Your task to perform on an android device: Go to privacy settings Image 0: 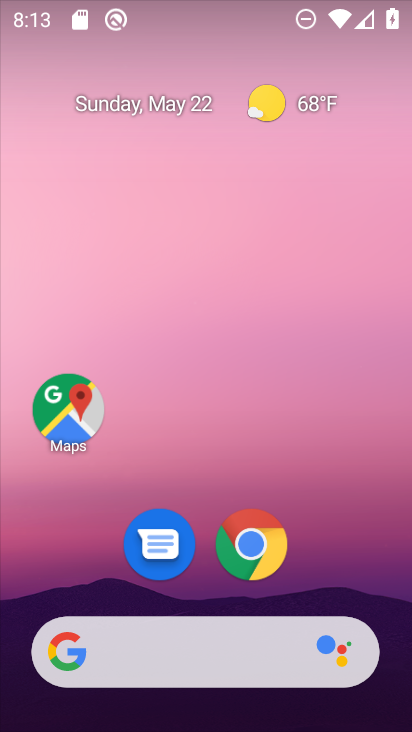
Step 0: click (251, 548)
Your task to perform on an android device: Go to privacy settings Image 1: 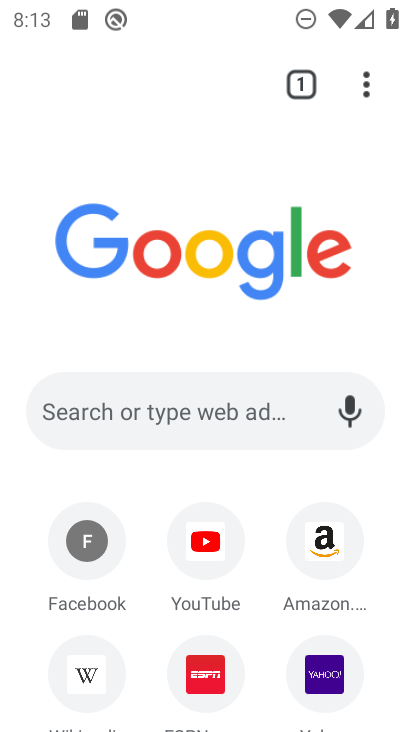
Step 1: click (370, 76)
Your task to perform on an android device: Go to privacy settings Image 2: 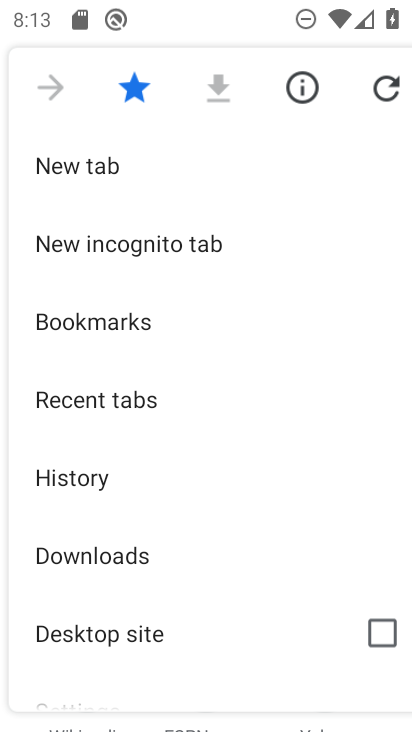
Step 2: drag from (266, 602) to (258, 380)
Your task to perform on an android device: Go to privacy settings Image 3: 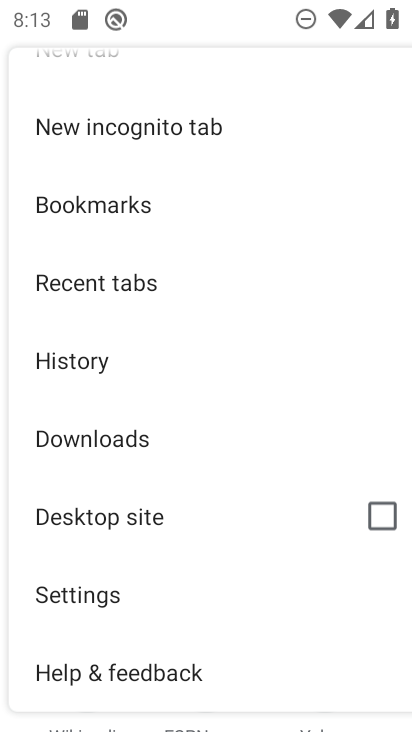
Step 3: drag from (245, 586) to (307, 341)
Your task to perform on an android device: Go to privacy settings Image 4: 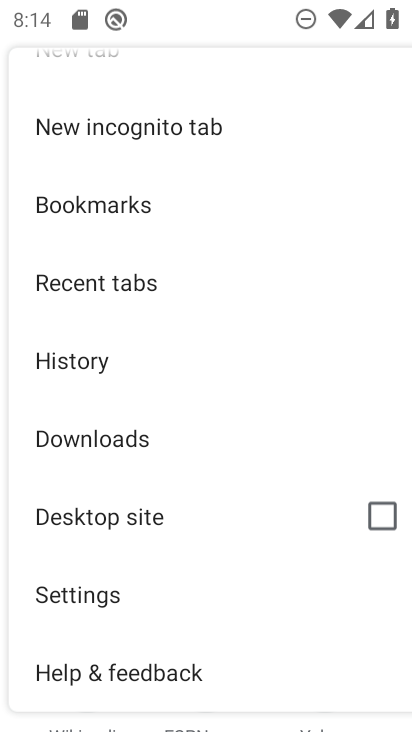
Step 4: drag from (248, 596) to (300, 301)
Your task to perform on an android device: Go to privacy settings Image 5: 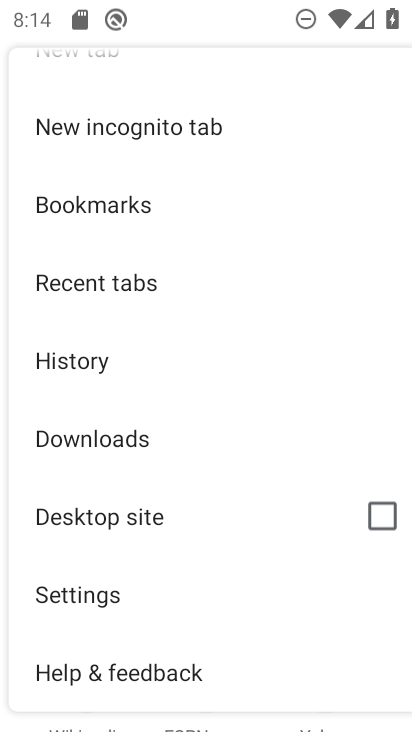
Step 5: click (68, 597)
Your task to perform on an android device: Go to privacy settings Image 6: 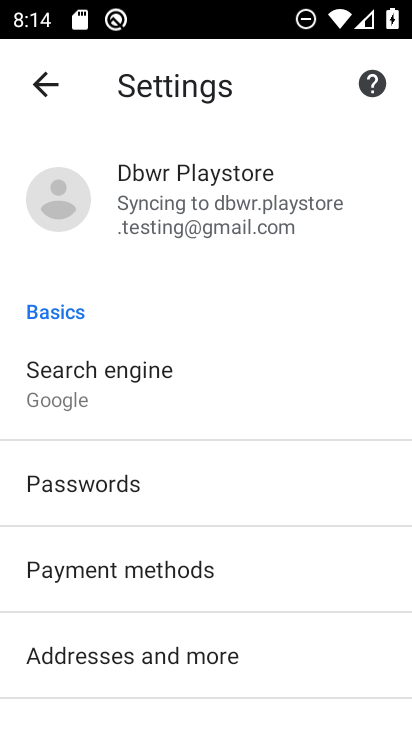
Step 6: drag from (262, 679) to (381, 352)
Your task to perform on an android device: Go to privacy settings Image 7: 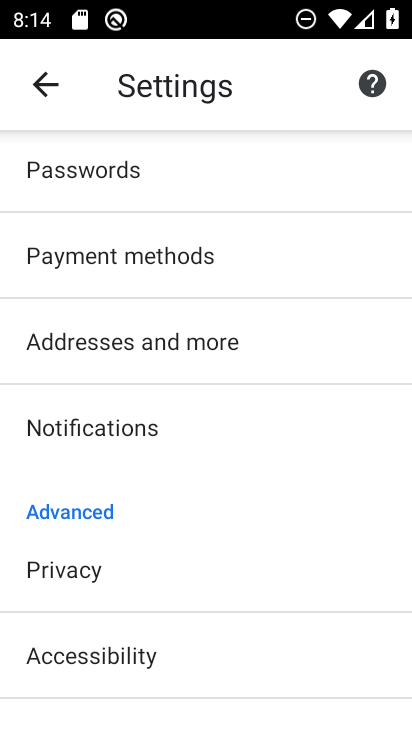
Step 7: click (91, 571)
Your task to perform on an android device: Go to privacy settings Image 8: 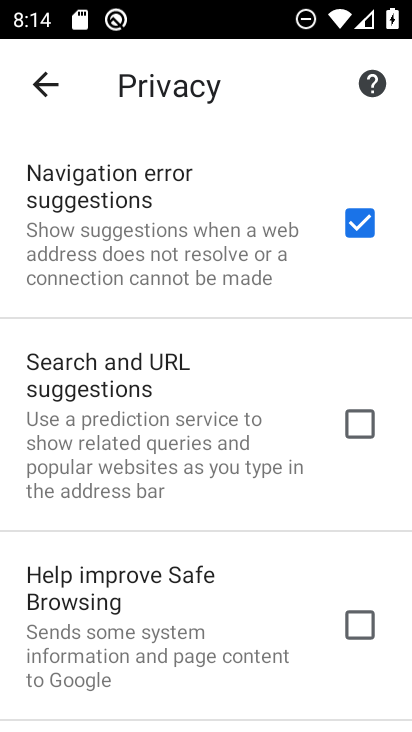
Step 8: task complete